Your task to perform on an android device: refresh tabs in the chrome app Image 0: 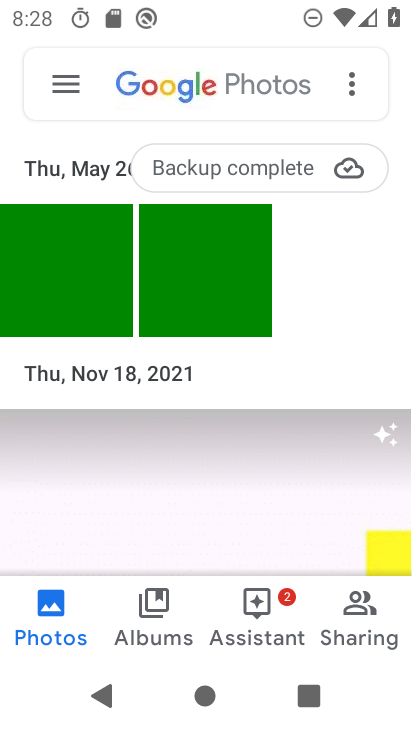
Step 0: press home button
Your task to perform on an android device: refresh tabs in the chrome app Image 1: 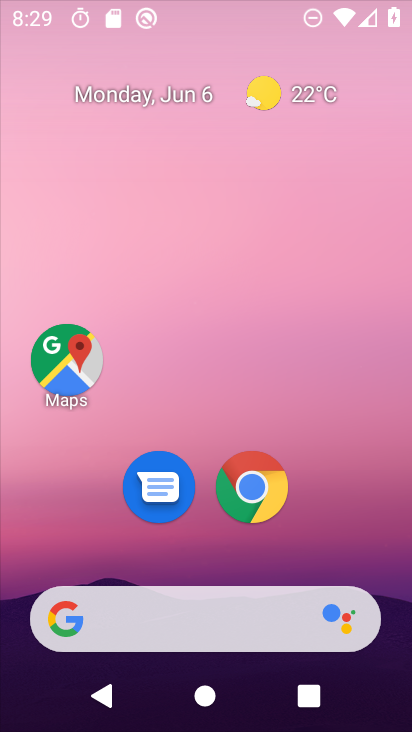
Step 1: drag from (393, 621) to (331, 44)
Your task to perform on an android device: refresh tabs in the chrome app Image 2: 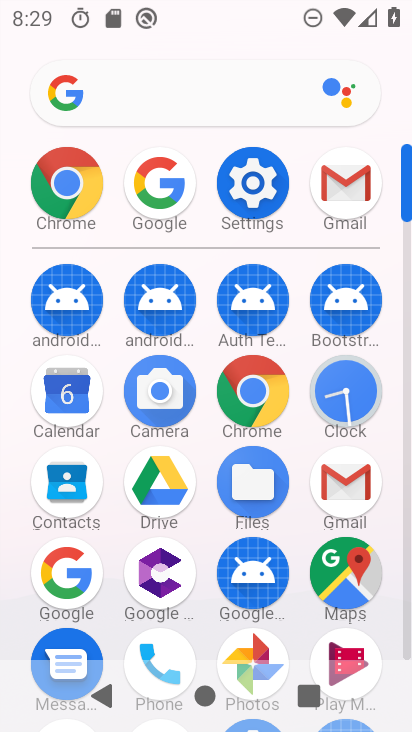
Step 2: click (246, 392)
Your task to perform on an android device: refresh tabs in the chrome app Image 3: 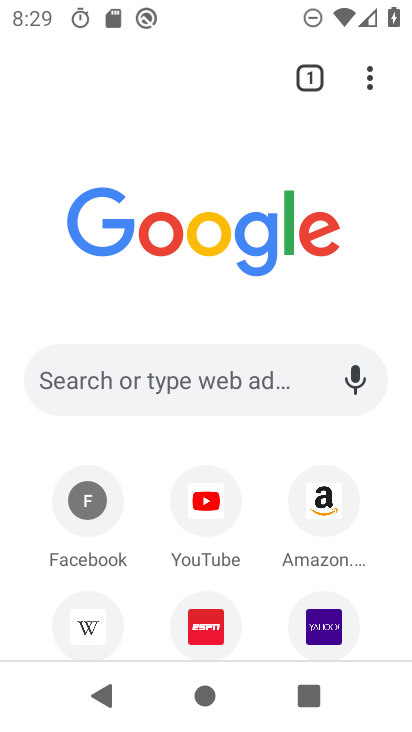
Step 3: click (366, 68)
Your task to perform on an android device: refresh tabs in the chrome app Image 4: 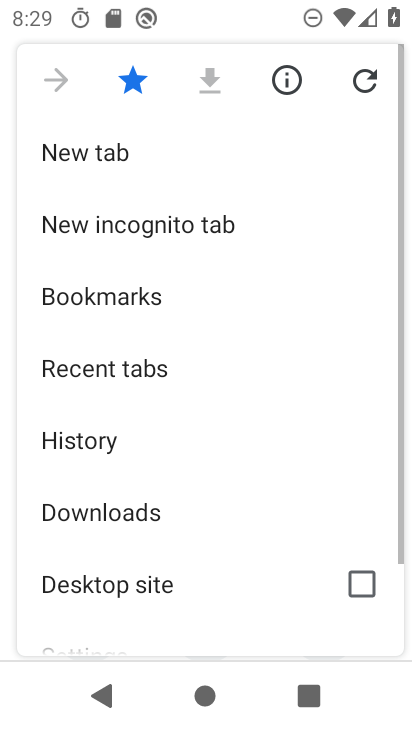
Step 4: click (369, 74)
Your task to perform on an android device: refresh tabs in the chrome app Image 5: 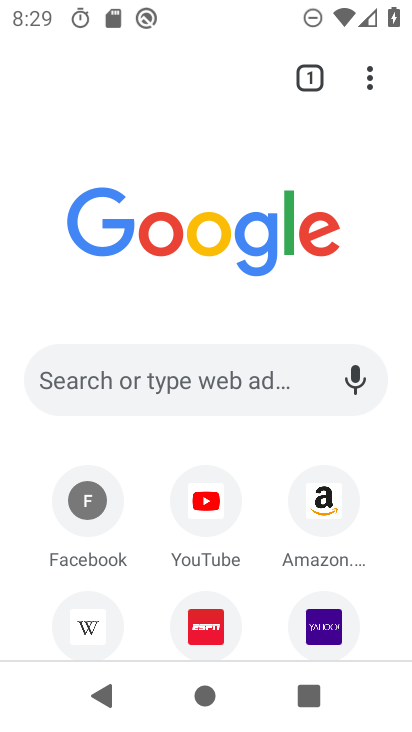
Step 5: task complete